Your task to perform on an android device: Go to Maps Image 0: 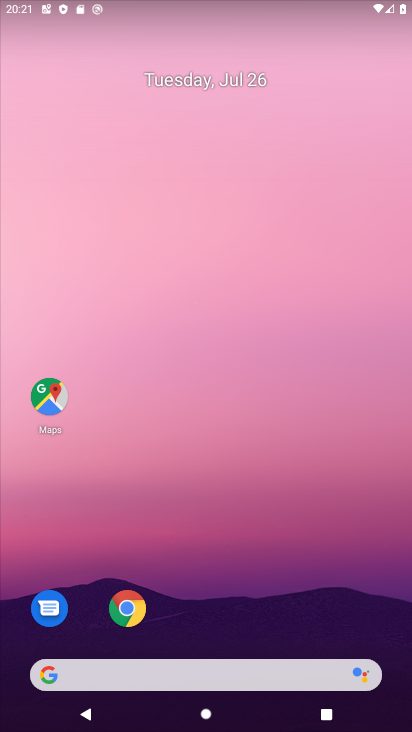
Step 0: click (63, 400)
Your task to perform on an android device: Go to Maps Image 1: 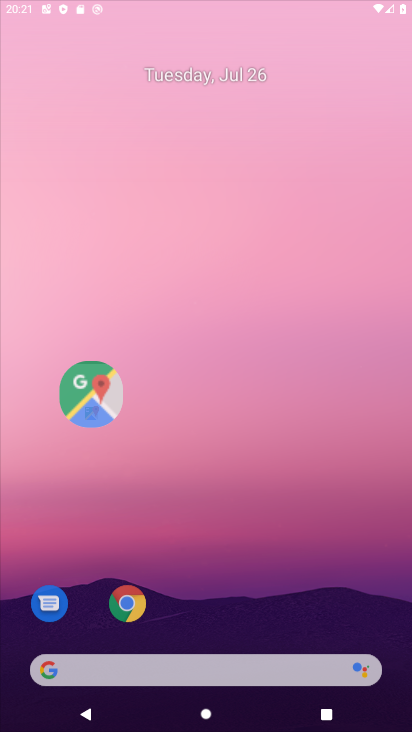
Step 1: click (46, 373)
Your task to perform on an android device: Go to Maps Image 2: 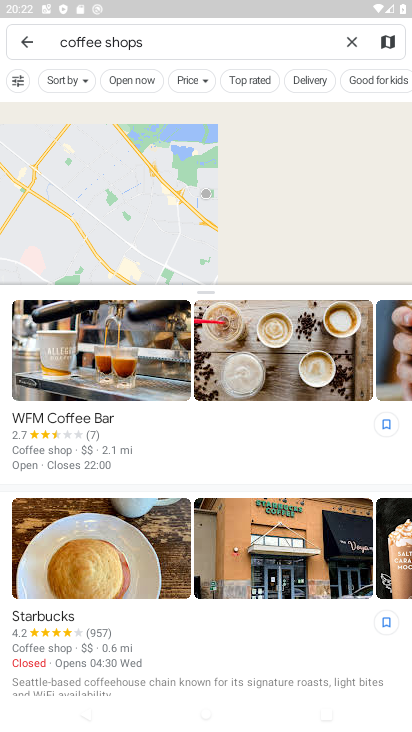
Step 2: click (19, 44)
Your task to perform on an android device: Go to Maps Image 3: 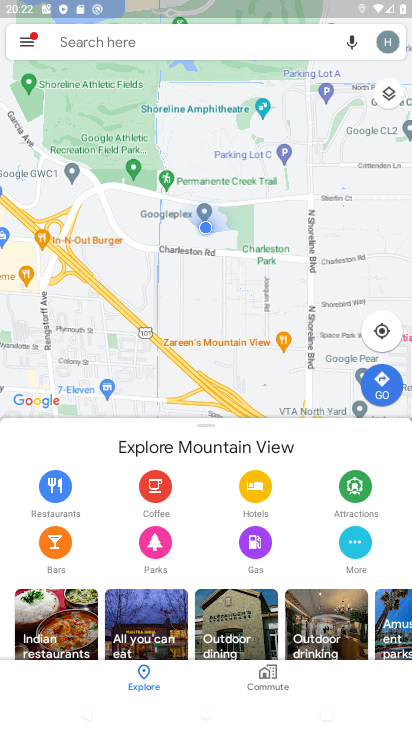
Step 3: task complete